Your task to perform on an android device: Show me popular games on the Play Store Image 0: 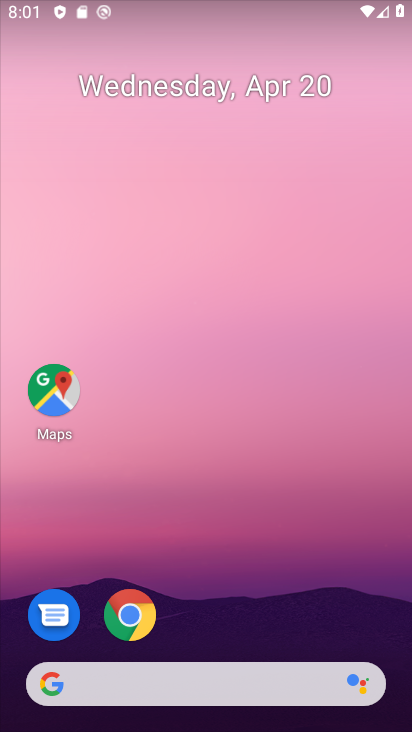
Step 0: drag from (242, 616) to (293, 39)
Your task to perform on an android device: Show me popular games on the Play Store Image 1: 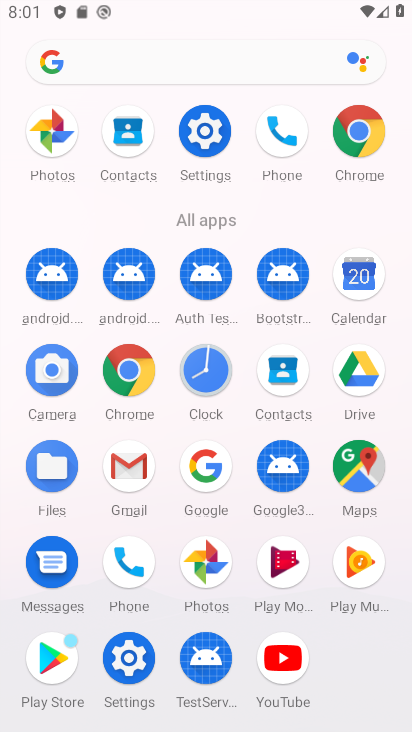
Step 1: drag from (163, 584) to (196, 313)
Your task to perform on an android device: Show me popular games on the Play Store Image 2: 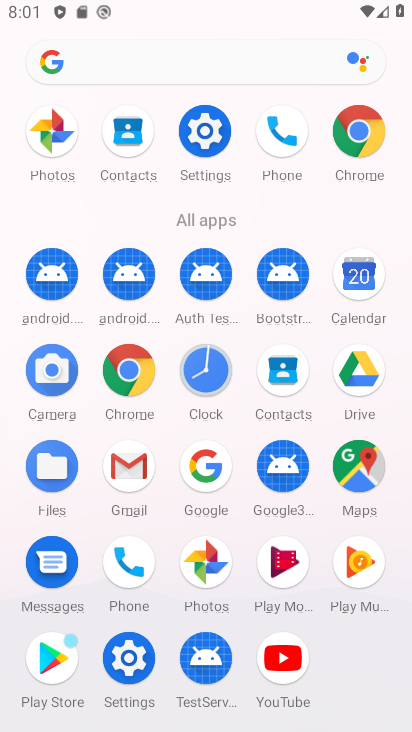
Step 2: click (51, 659)
Your task to perform on an android device: Show me popular games on the Play Store Image 3: 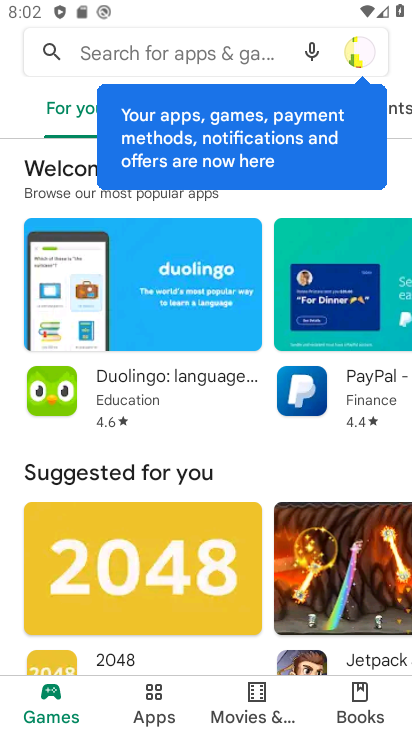
Step 3: click (249, 56)
Your task to perform on an android device: Show me popular games on the Play Store Image 4: 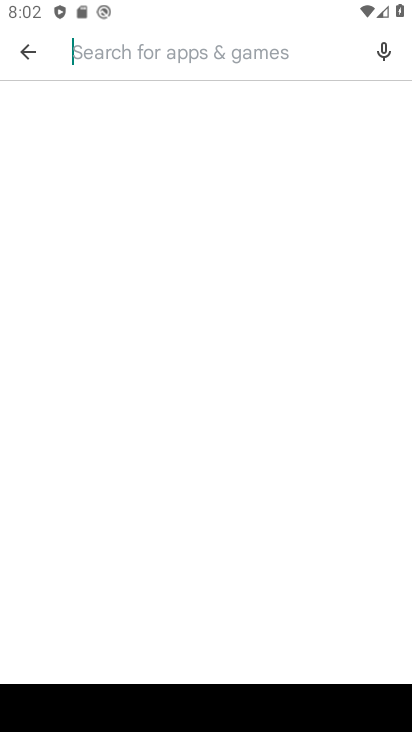
Step 4: type "popular"
Your task to perform on an android device: Show me popular games on the Play Store Image 5: 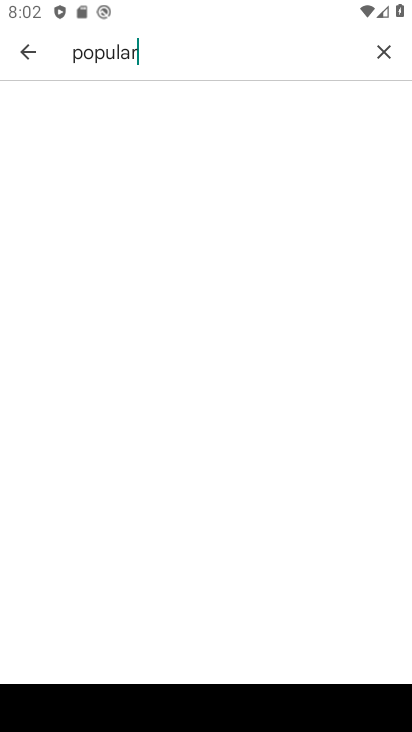
Step 5: type ""
Your task to perform on an android device: Show me popular games on the Play Store Image 6: 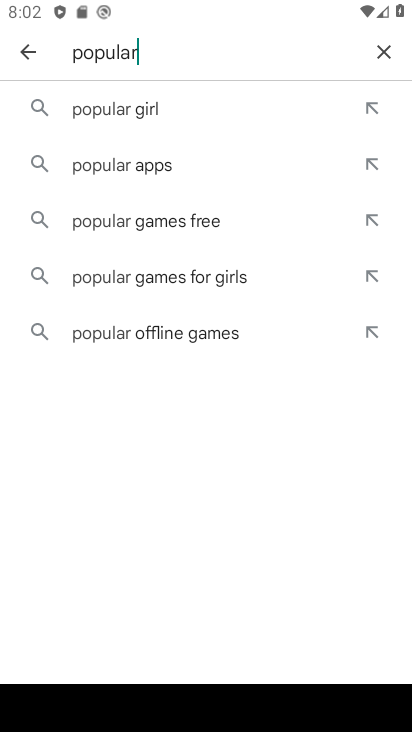
Step 6: click (121, 223)
Your task to perform on an android device: Show me popular games on the Play Store Image 7: 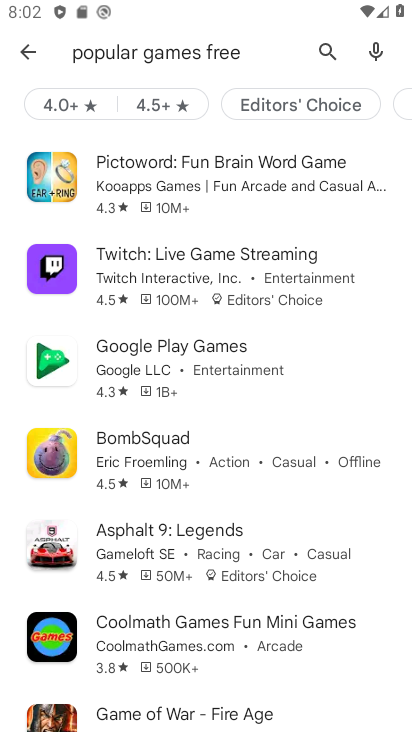
Step 7: task complete